Your task to perform on an android device: refresh tabs in the chrome app Image 0: 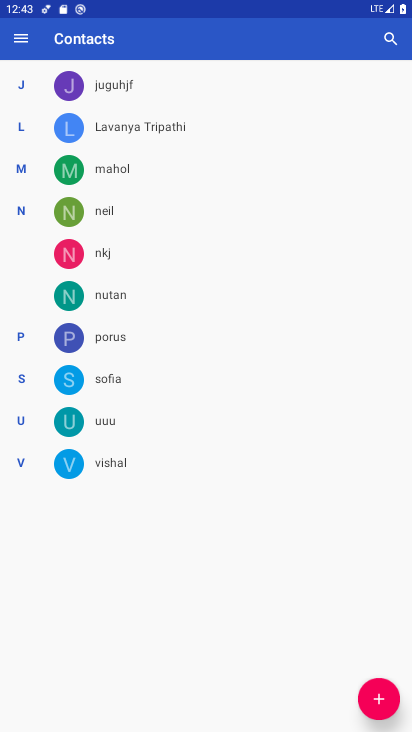
Step 0: press home button
Your task to perform on an android device: refresh tabs in the chrome app Image 1: 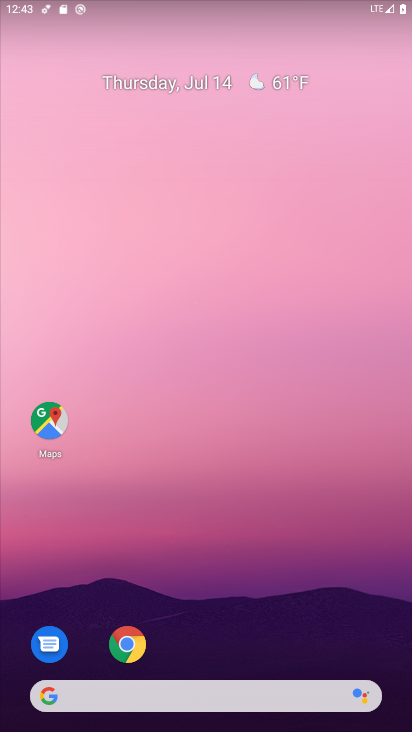
Step 1: click (124, 643)
Your task to perform on an android device: refresh tabs in the chrome app Image 2: 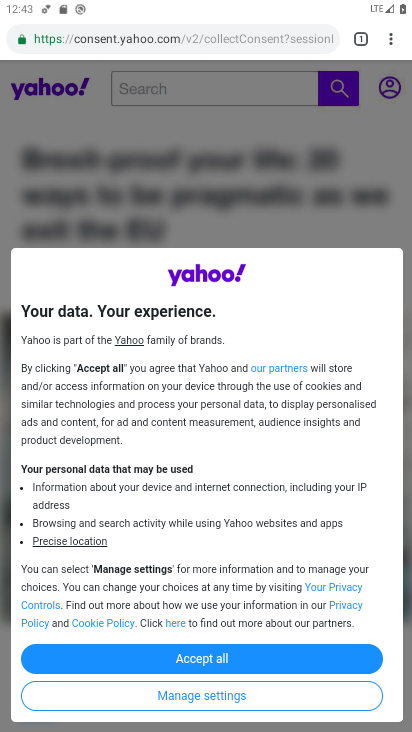
Step 2: click (395, 45)
Your task to perform on an android device: refresh tabs in the chrome app Image 3: 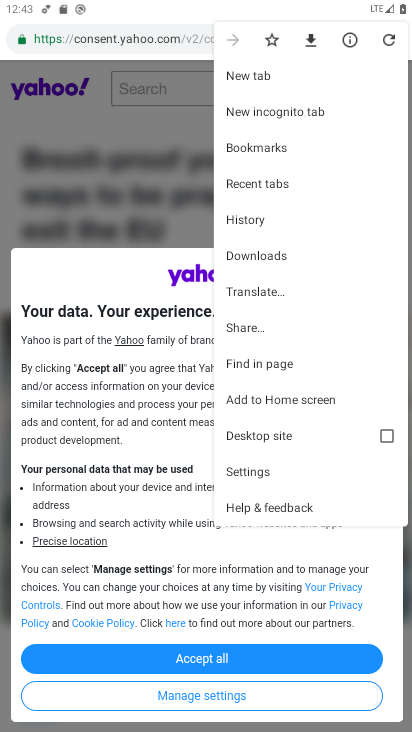
Step 3: click (389, 45)
Your task to perform on an android device: refresh tabs in the chrome app Image 4: 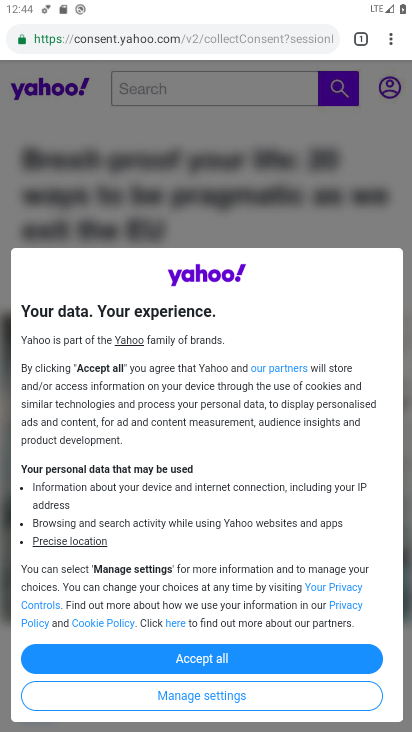
Step 4: task complete